Your task to perform on an android device: What's the weather like inToronto? Image 0: 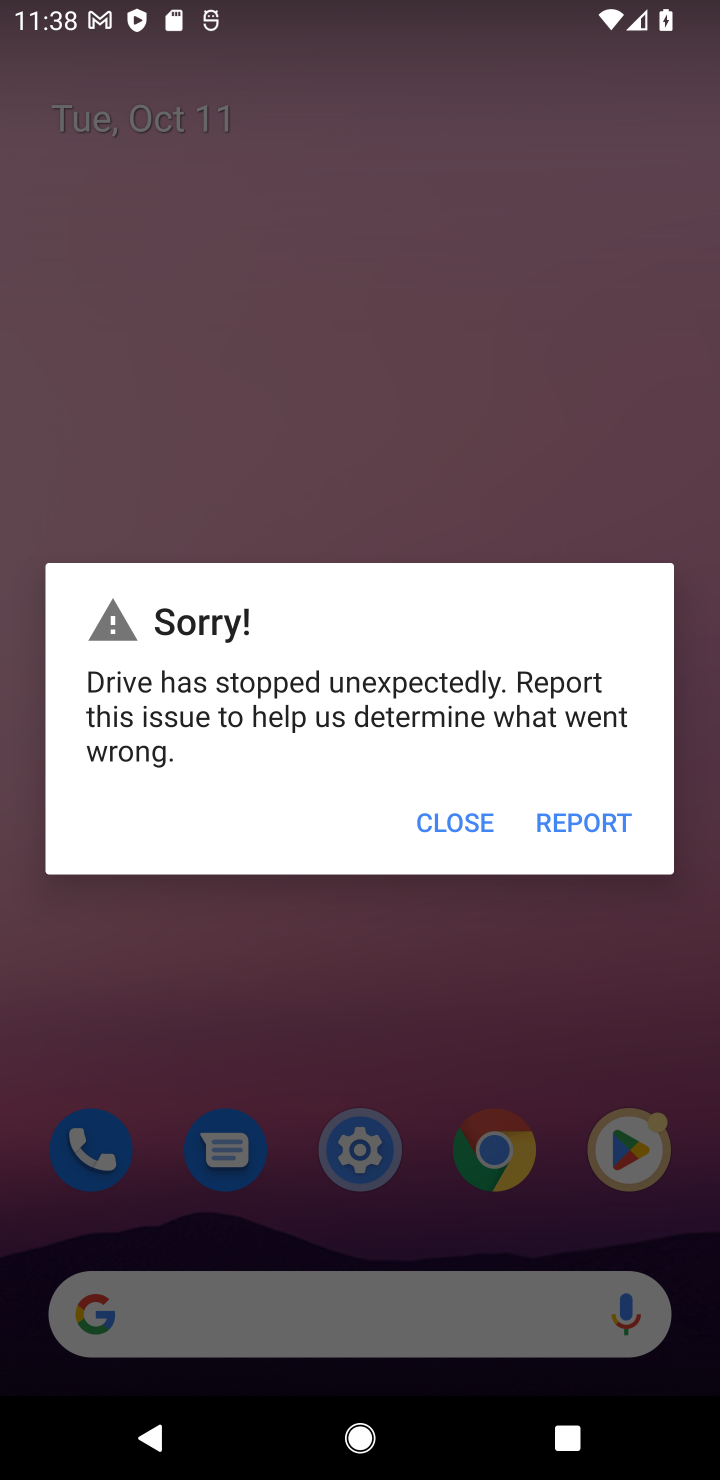
Step 0: press home button
Your task to perform on an android device: What's the weather like inToronto? Image 1: 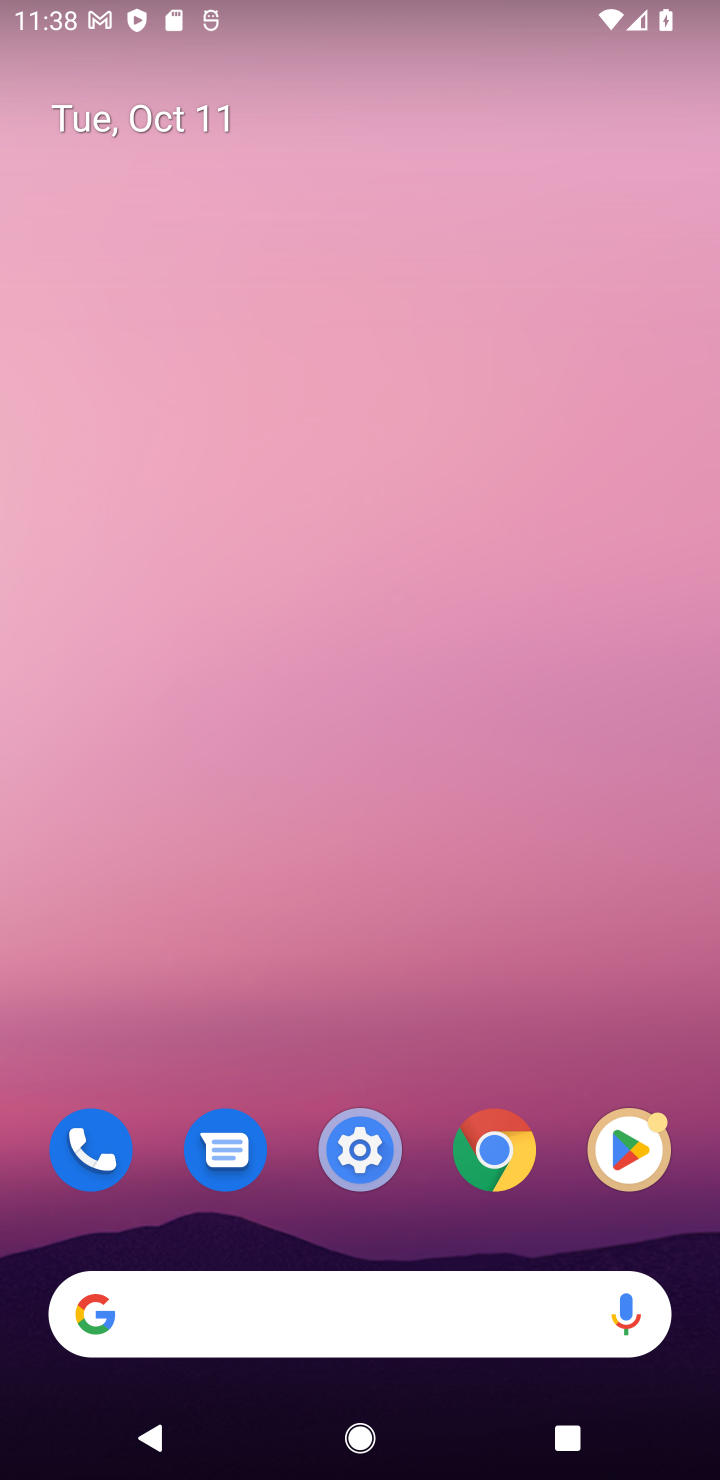
Step 1: click (322, 1297)
Your task to perform on an android device: What's the weather like inToronto? Image 2: 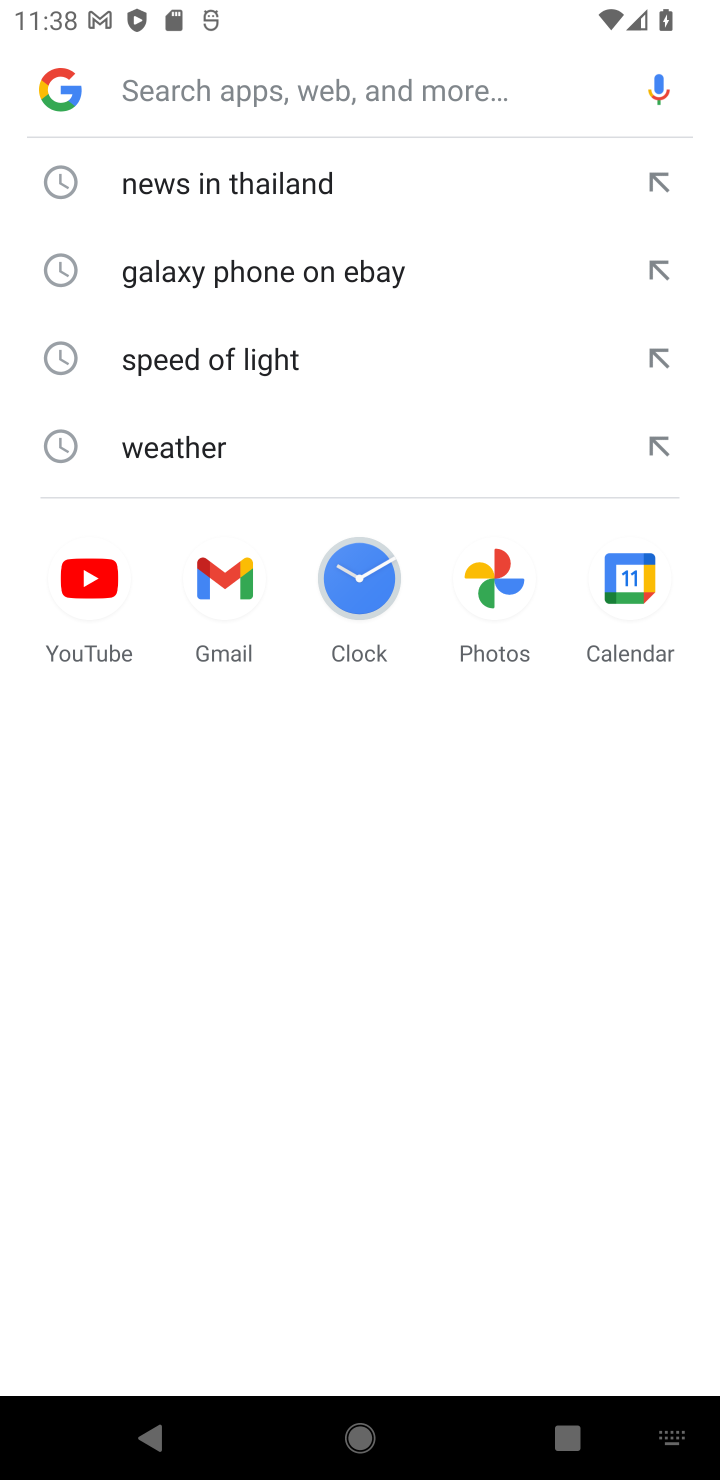
Step 2: type "weather like in toronto?"
Your task to perform on an android device: What's the weather like inToronto? Image 3: 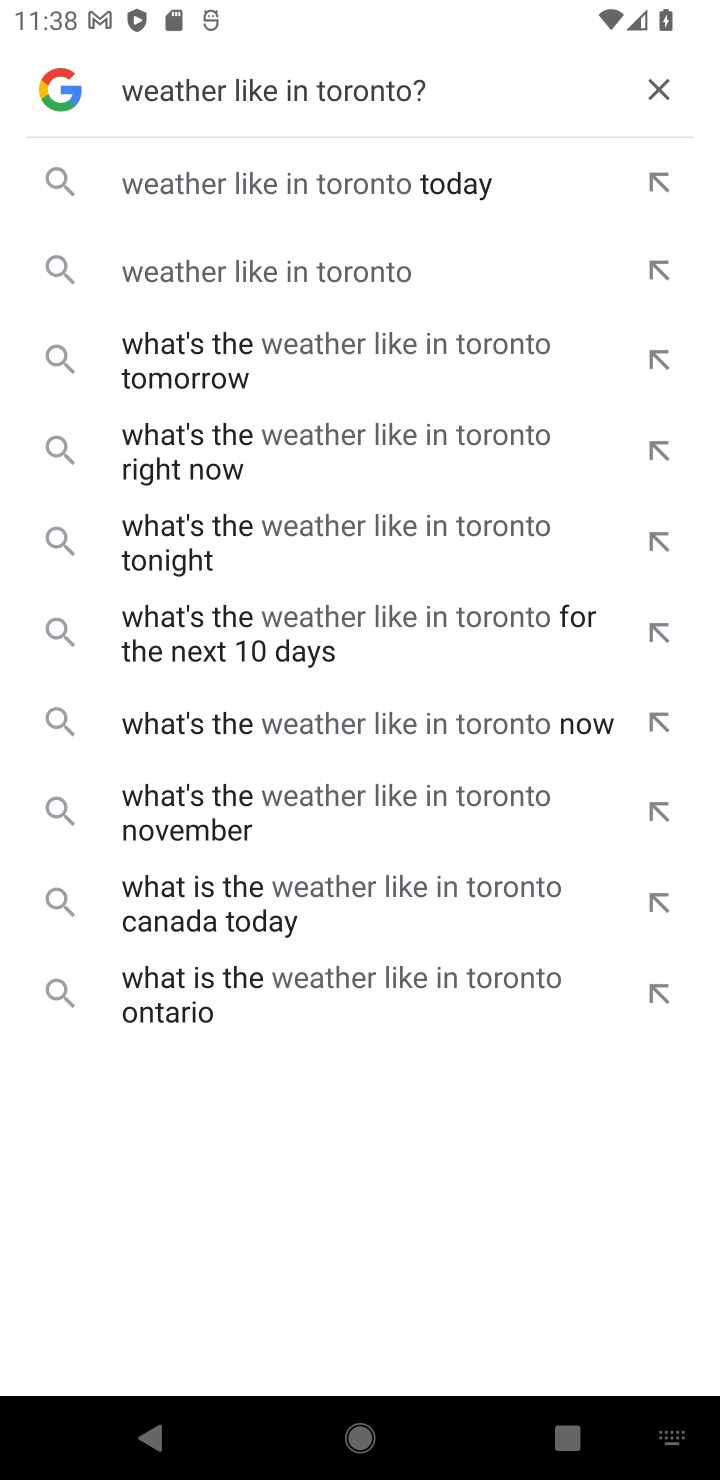
Step 3: click (309, 177)
Your task to perform on an android device: What's the weather like inToronto? Image 4: 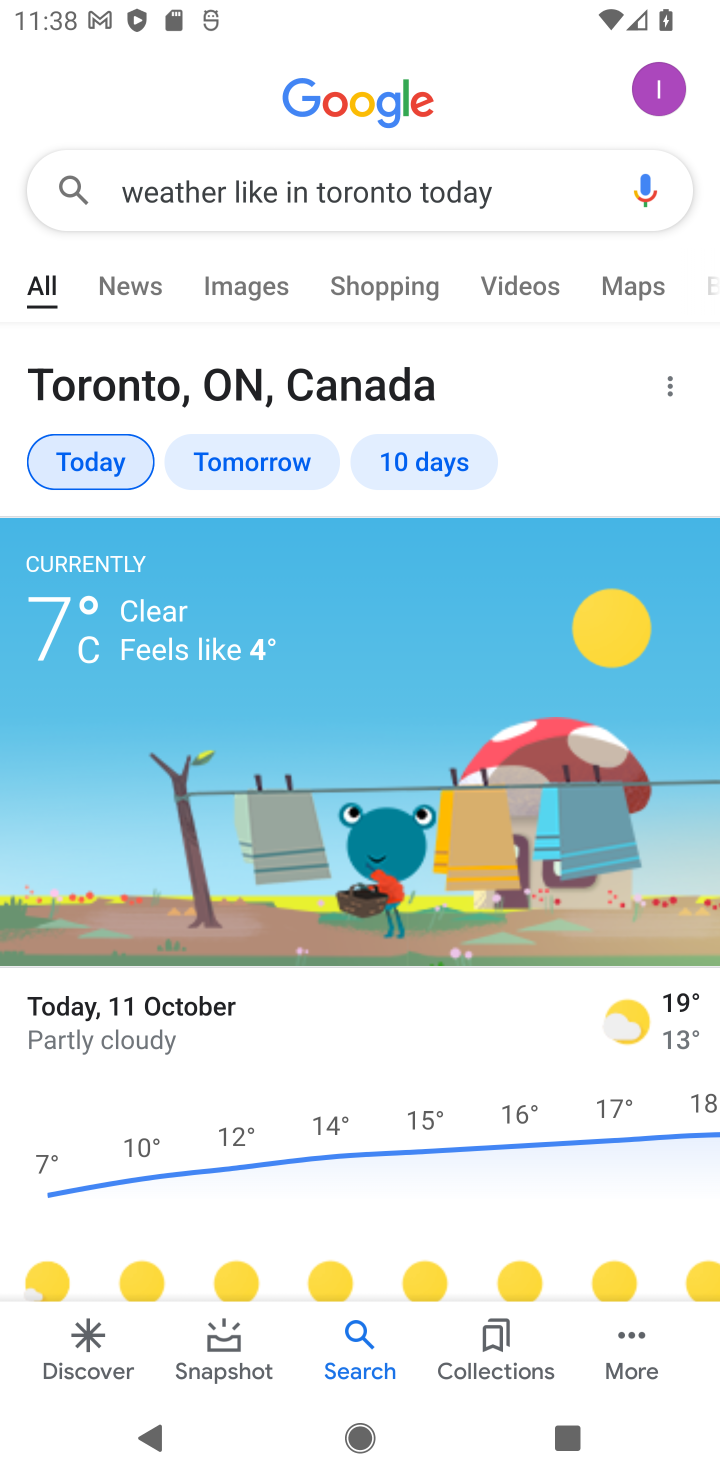
Step 4: task complete